Your task to perform on an android device: snooze an email in the gmail app Image 0: 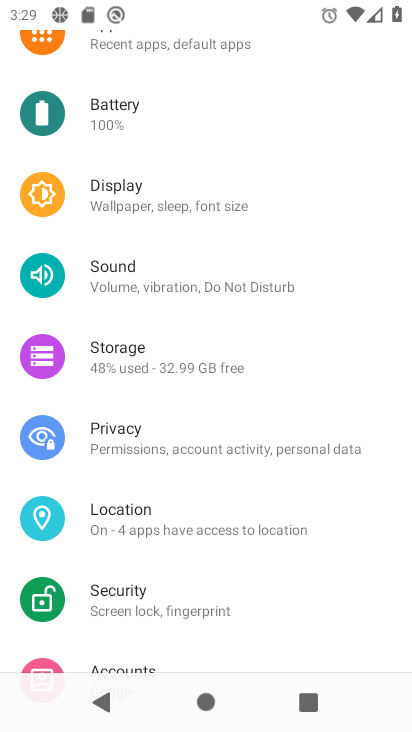
Step 0: press back button
Your task to perform on an android device: snooze an email in the gmail app Image 1: 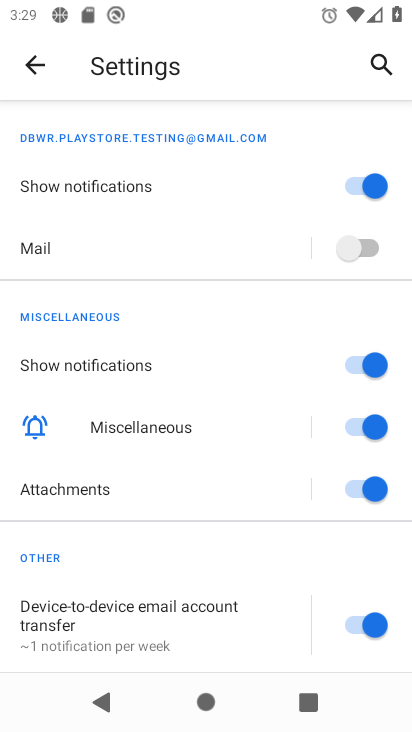
Step 1: press home button
Your task to perform on an android device: snooze an email in the gmail app Image 2: 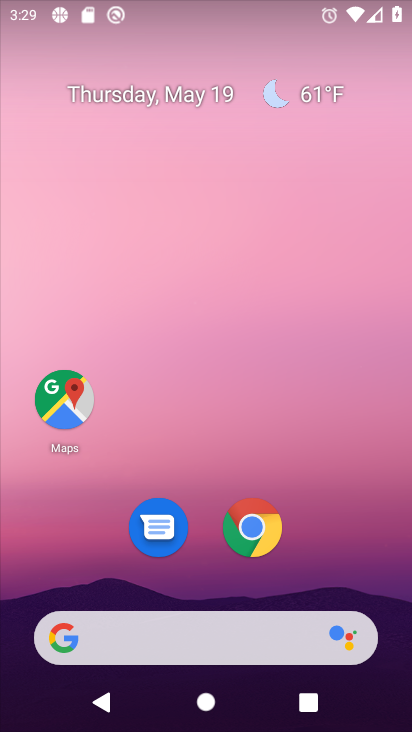
Step 2: drag from (192, 512) to (234, 101)
Your task to perform on an android device: snooze an email in the gmail app Image 3: 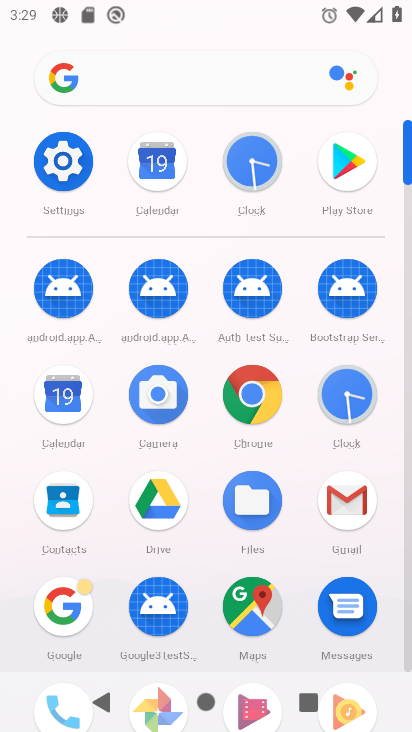
Step 3: click (316, 500)
Your task to perform on an android device: snooze an email in the gmail app Image 4: 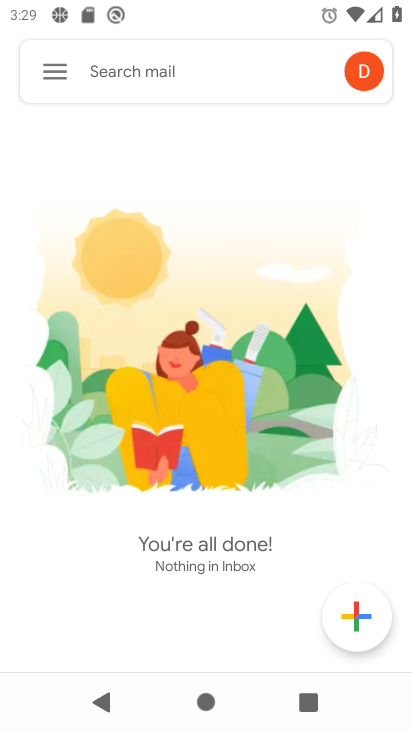
Step 4: click (48, 64)
Your task to perform on an android device: snooze an email in the gmail app Image 5: 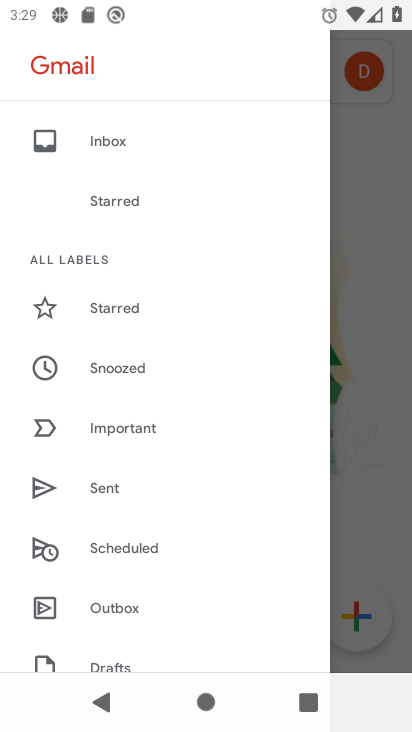
Step 5: drag from (115, 631) to (212, 191)
Your task to perform on an android device: snooze an email in the gmail app Image 6: 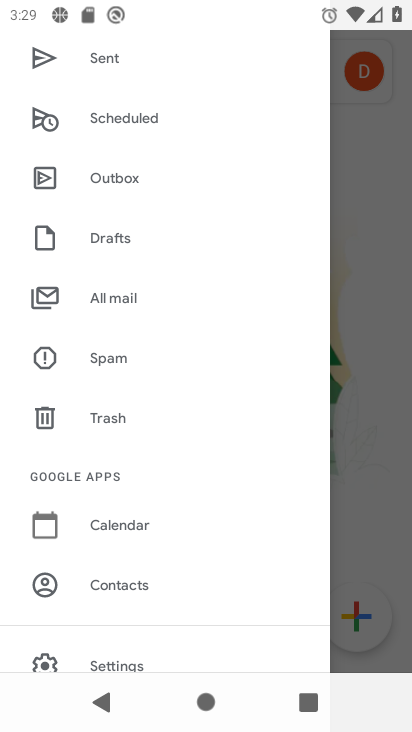
Step 6: click (104, 297)
Your task to perform on an android device: snooze an email in the gmail app Image 7: 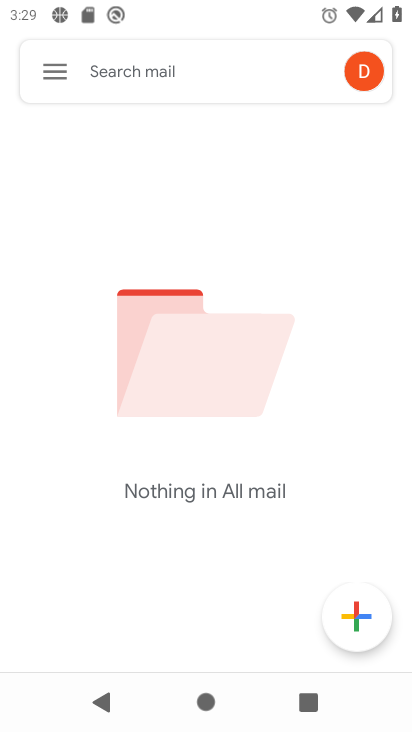
Step 7: task complete